Your task to perform on an android device: turn off data saver in the chrome app Image 0: 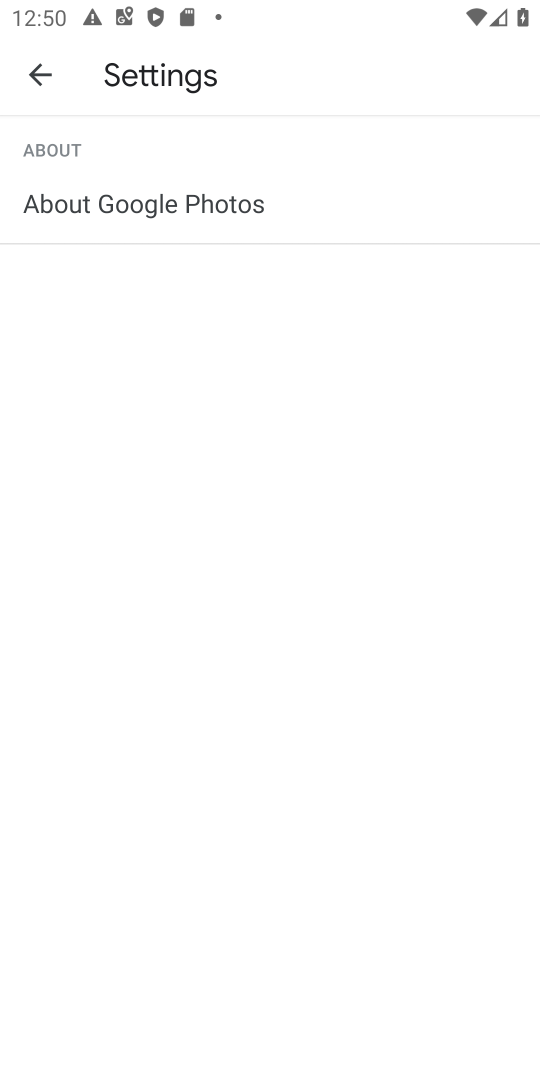
Step 0: press home button
Your task to perform on an android device: turn off data saver in the chrome app Image 1: 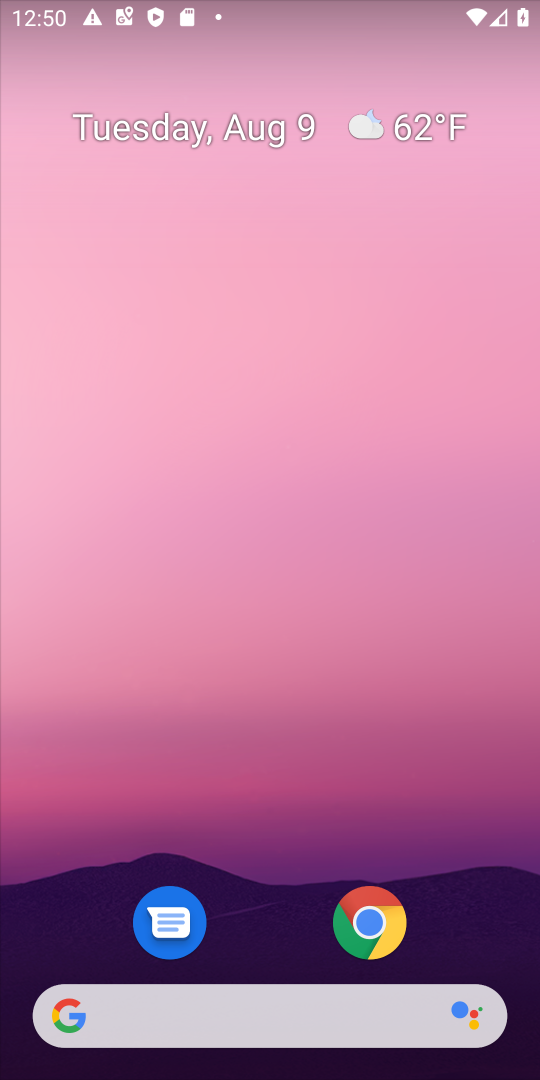
Step 1: click (391, 901)
Your task to perform on an android device: turn off data saver in the chrome app Image 2: 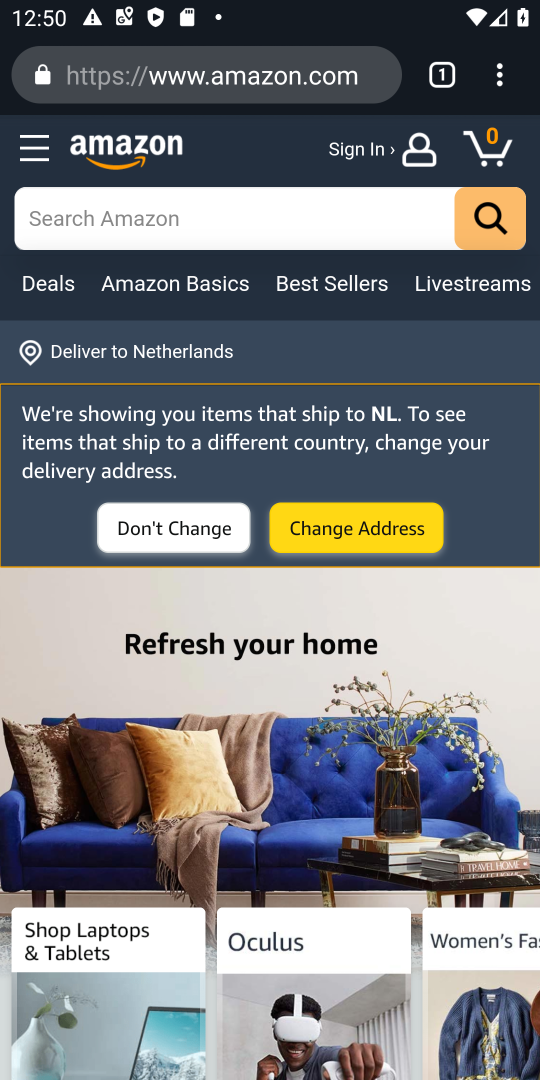
Step 2: click (501, 83)
Your task to perform on an android device: turn off data saver in the chrome app Image 3: 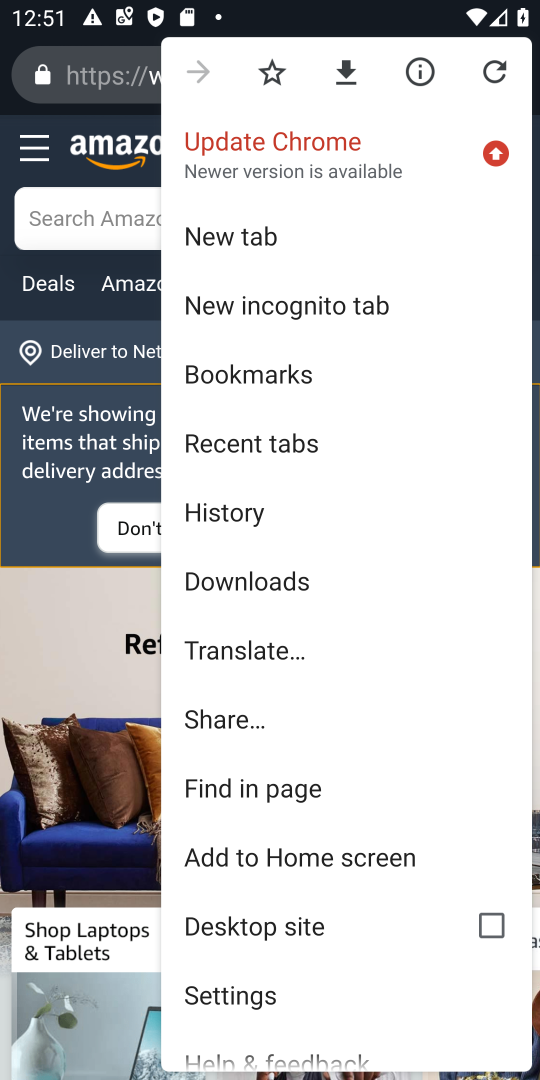
Step 3: click (247, 989)
Your task to perform on an android device: turn off data saver in the chrome app Image 4: 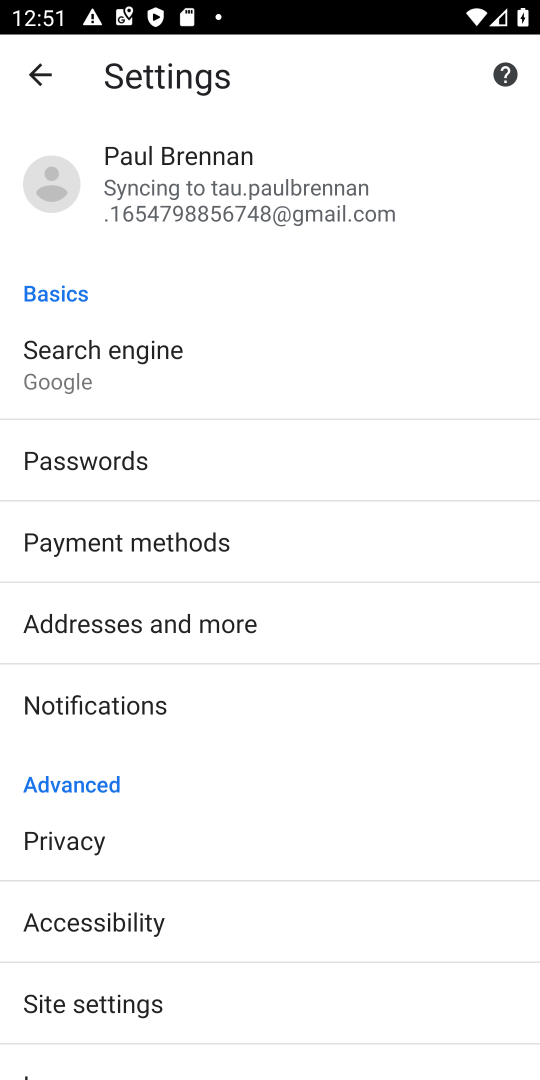
Step 4: drag from (247, 989) to (68, 212)
Your task to perform on an android device: turn off data saver in the chrome app Image 5: 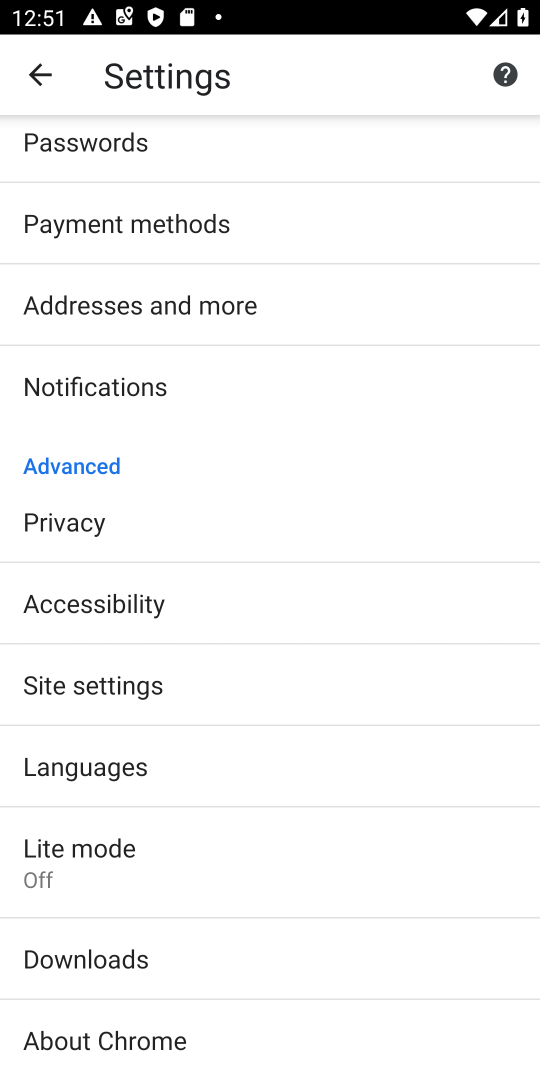
Step 5: click (83, 845)
Your task to perform on an android device: turn off data saver in the chrome app Image 6: 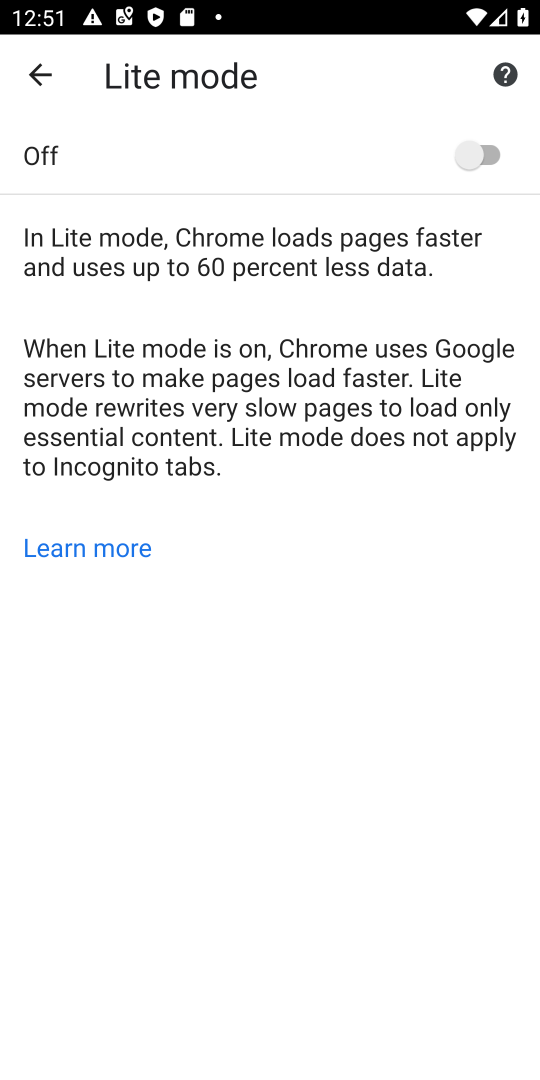
Step 6: task complete